Your task to perform on an android device: manage bookmarks in the chrome app Image 0: 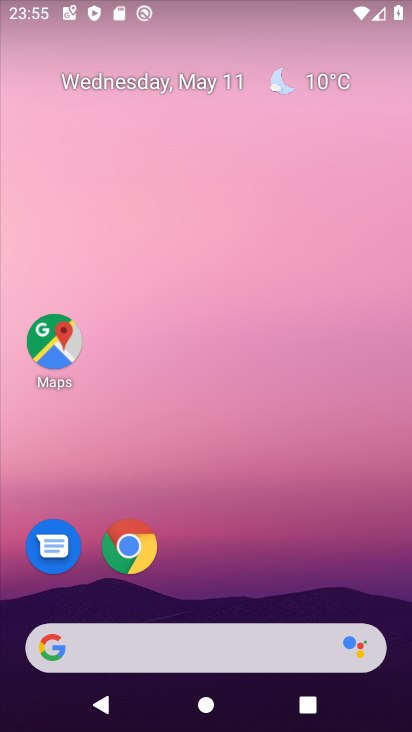
Step 0: click (128, 548)
Your task to perform on an android device: manage bookmarks in the chrome app Image 1: 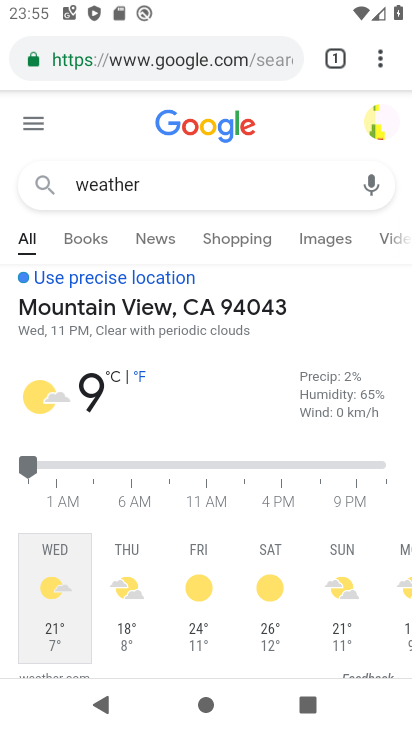
Step 1: click (379, 57)
Your task to perform on an android device: manage bookmarks in the chrome app Image 2: 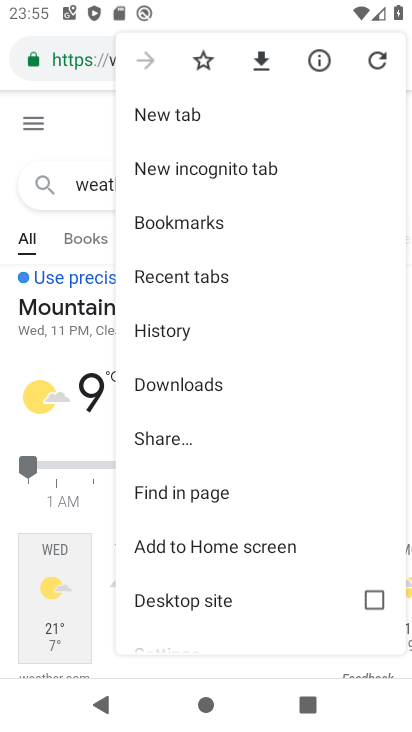
Step 2: drag from (223, 523) to (284, 261)
Your task to perform on an android device: manage bookmarks in the chrome app Image 3: 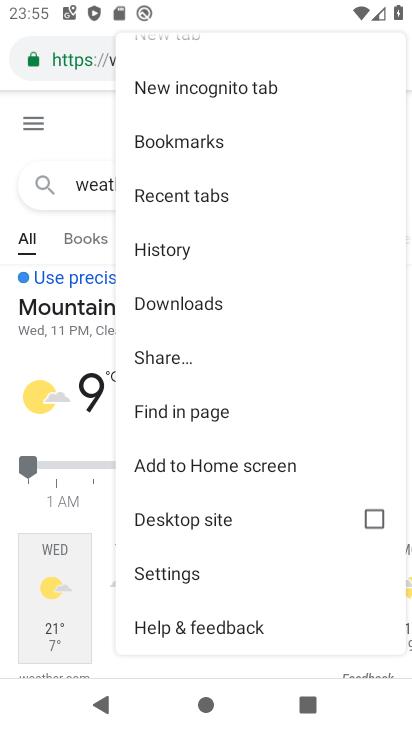
Step 3: click (209, 161)
Your task to perform on an android device: manage bookmarks in the chrome app Image 4: 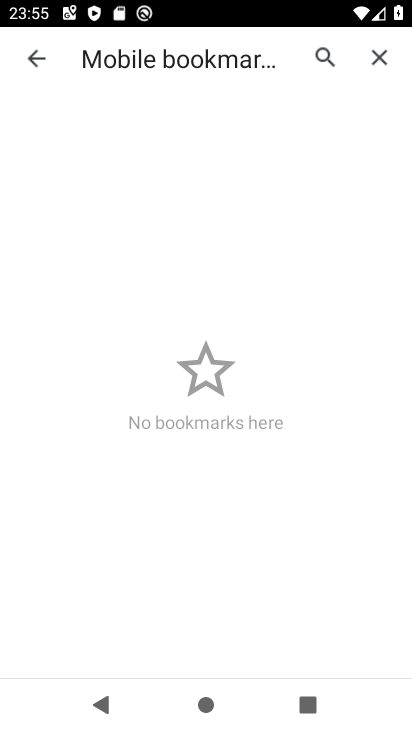
Step 4: task complete